Your task to perform on an android device: set default search engine in the chrome app Image 0: 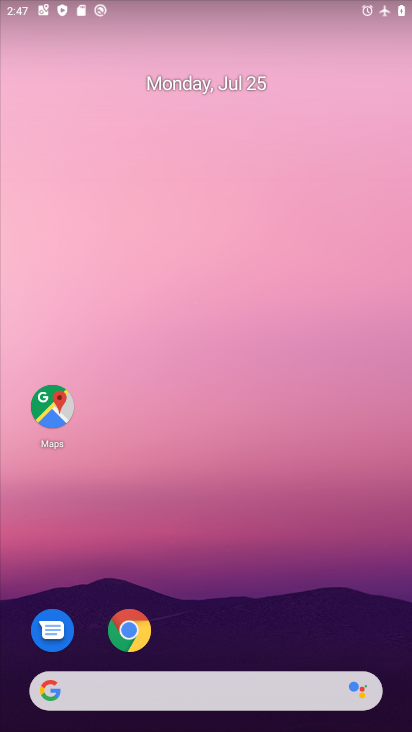
Step 0: click (138, 630)
Your task to perform on an android device: set default search engine in the chrome app Image 1: 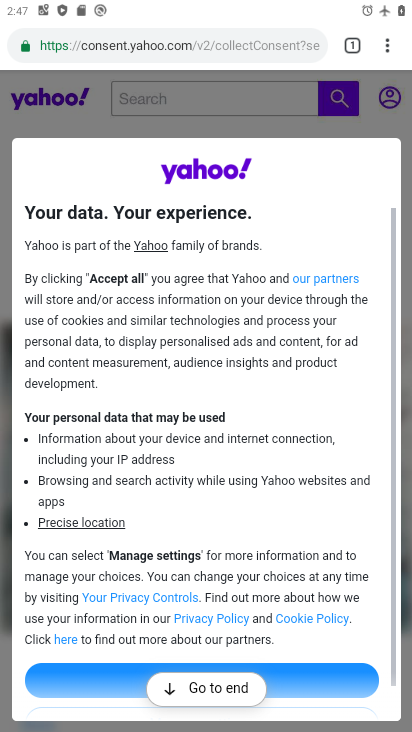
Step 1: click (179, 687)
Your task to perform on an android device: set default search engine in the chrome app Image 2: 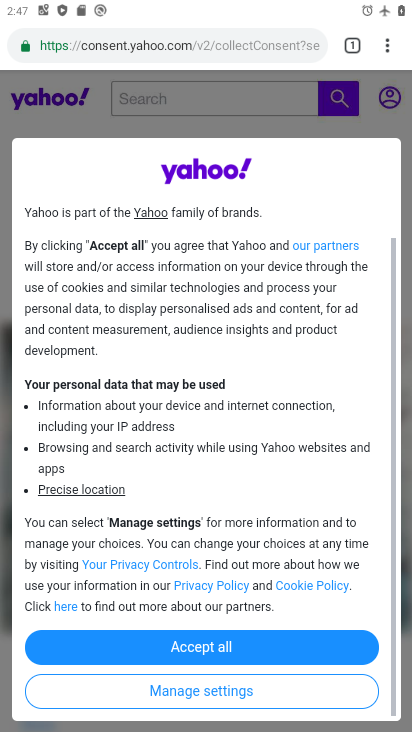
Step 2: click (180, 659)
Your task to perform on an android device: set default search engine in the chrome app Image 3: 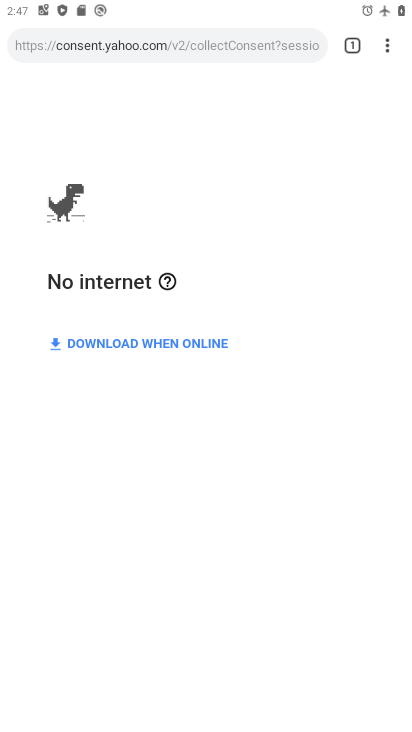
Step 3: task complete